Your task to perform on an android device: uninstall "Etsy: Buy & Sell Unique Items" Image 0: 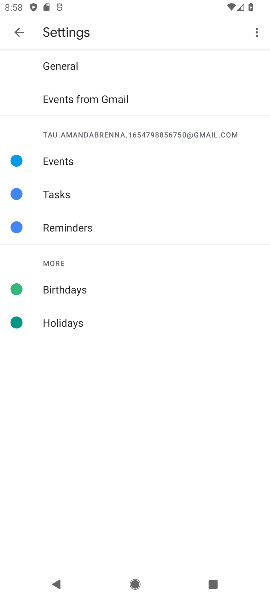
Step 0: press back button
Your task to perform on an android device: uninstall "Etsy: Buy & Sell Unique Items" Image 1: 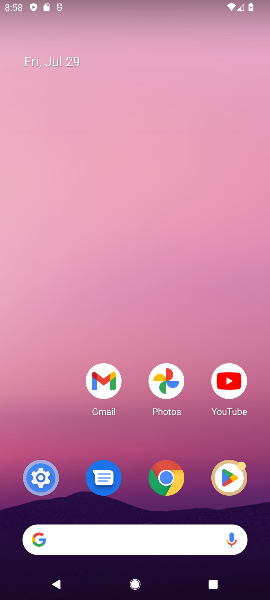
Step 1: click (231, 475)
Your task to perform on an android device: uninstall "Etsy: Buy & Sell Unique Items" Image 2: 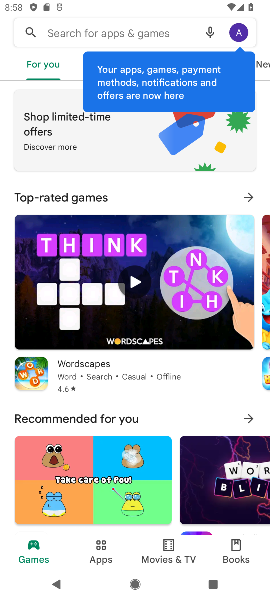
Step 2: click (111, 29)
Your task to perform on an android device: uninstall "Etsy: Buy & Sell Unique Items" Image 3: 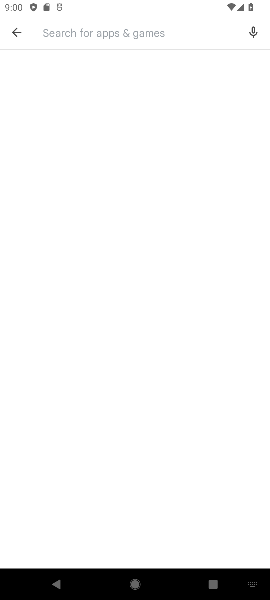
Step 3: click (93, 33)
Your task to perform on an android device: uninstall "Etsy: Buy & Sell Unique Items" Image 4: 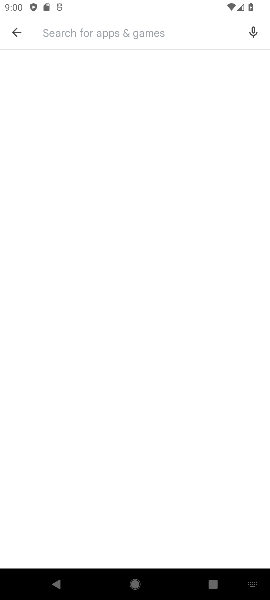
Step 4: click (113, 32)
Your task to perform on an android device: uninstall "Etsy: Buy & Sell Unique Items" Image 5: 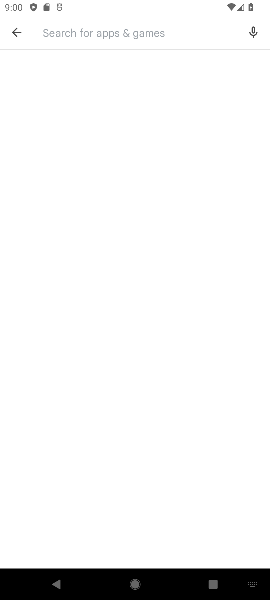
Step 5: type "etsy"
Your task to perform on an android device: uninstall "Etsy: Buy & Sell Unique Items" Image 6: 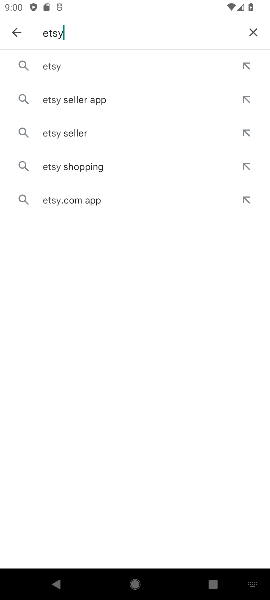
Step 6: click (65, 65)
Your task to perform on an android device: uninstall "Etsy: Buy & Sell Unique Items" Image 7: 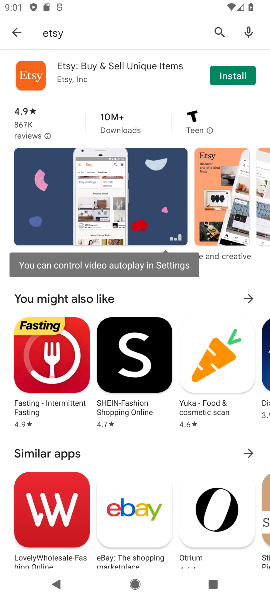
Step 7: task complete